Your task to perform on an android device: turn on javascript in the chrome app Image 0: 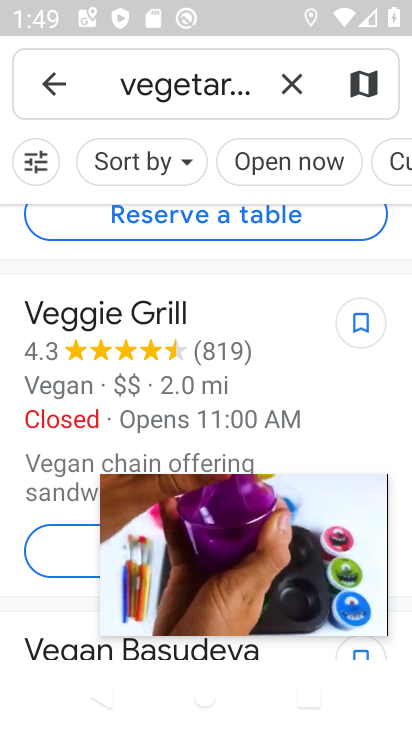
Step 0: click (45, 82)
Your task to perform on an android device: turn on javascript in the chrome app Image 1: 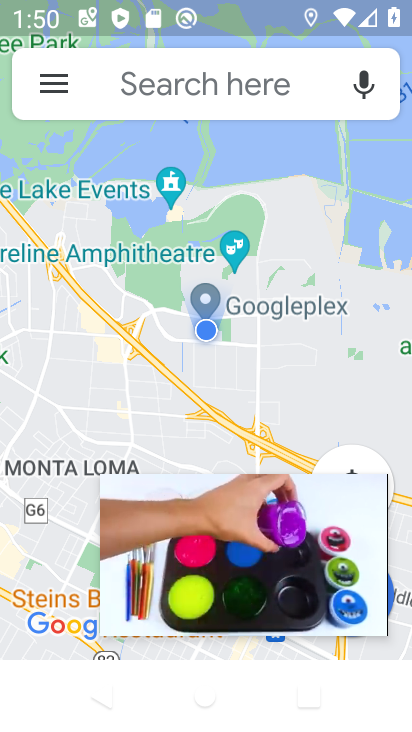
Step 1: press home button
Your task to perform on an android device: turn on javascript in the chrome app Image 2: 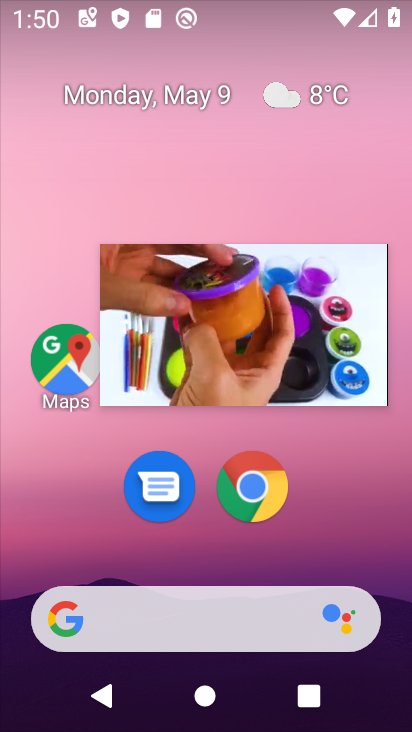
Step 2: click (377, 253)
Your task to perform on an android device: turn on javascript in the chrome app Image 3: 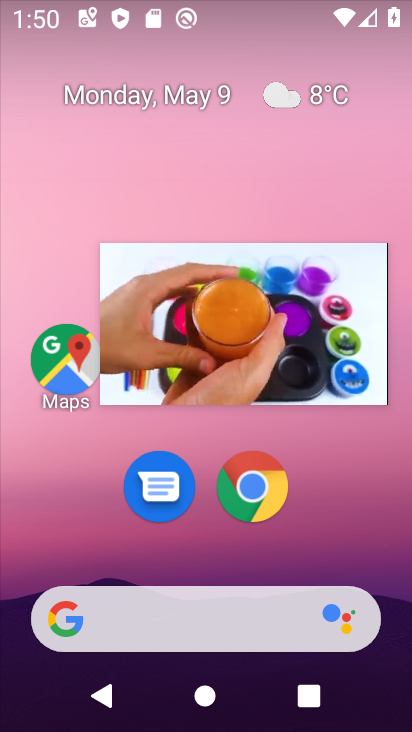
Step 3: click (379, 257)
Your task to perform on an android device: turn on javascript in the chrome app Image 4: 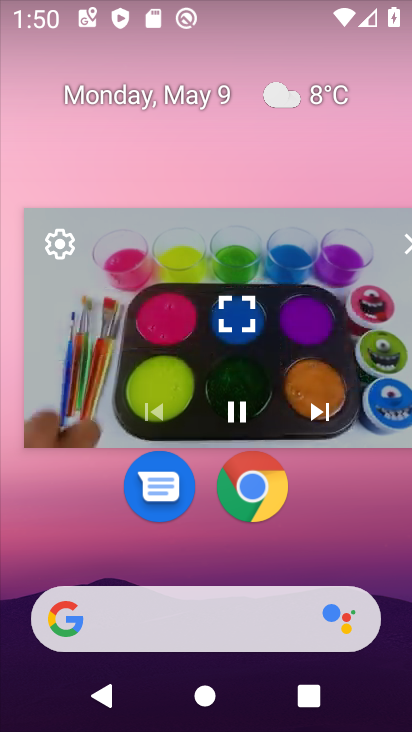
Step 4: click (404, 244)
Your task to perform on an android device: turn on javascript in the chrome app Image 5: 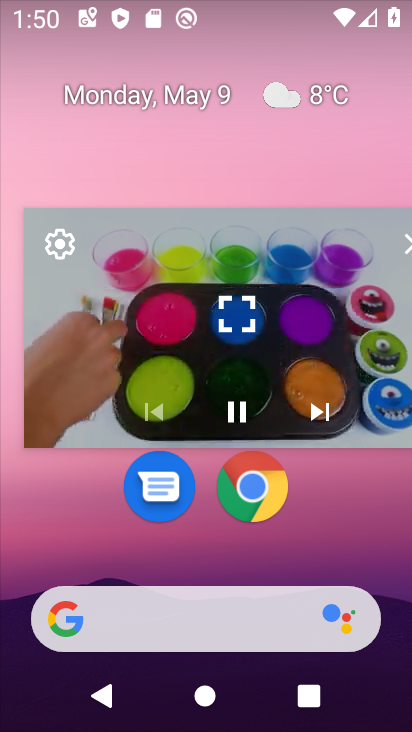
Step 5: click (404, 244)
Your task to perform on an android device: turn on javascript in the chrome app Image 6: 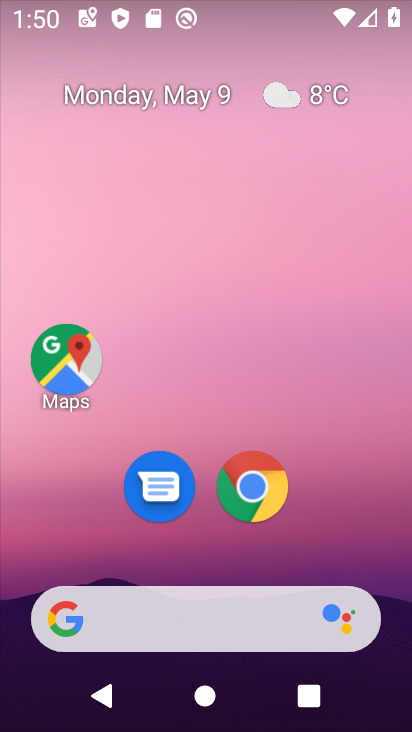
Step 6: click (259, 475)
Your task to perform on an android device: turn on javascript in the chrome app Image 7: 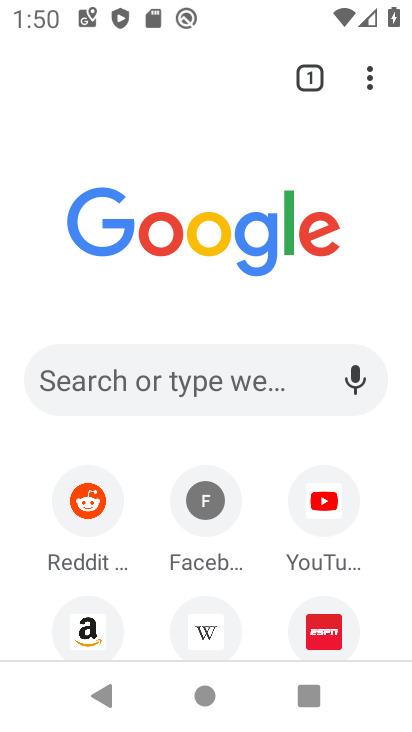
Step 7: drag from (243, 575) to (298, 394)
Your task to perform on an android device: turn on javascript in the chrome app Image 8: 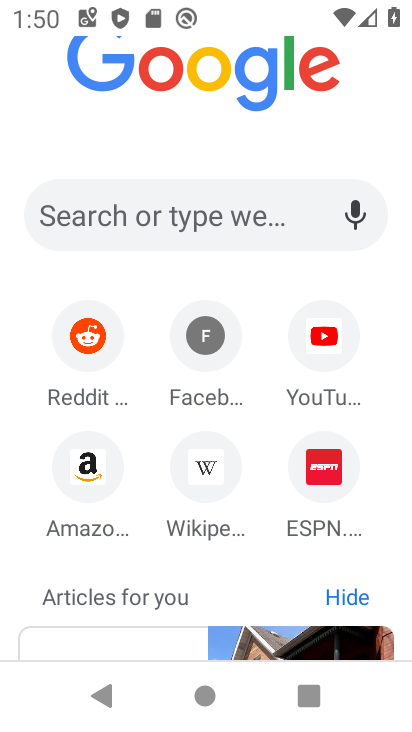
Step 8: drag from (344, 153) to (309, 511)
Your task to perform on an android device: turn on javascript in the chrome app Image 9: 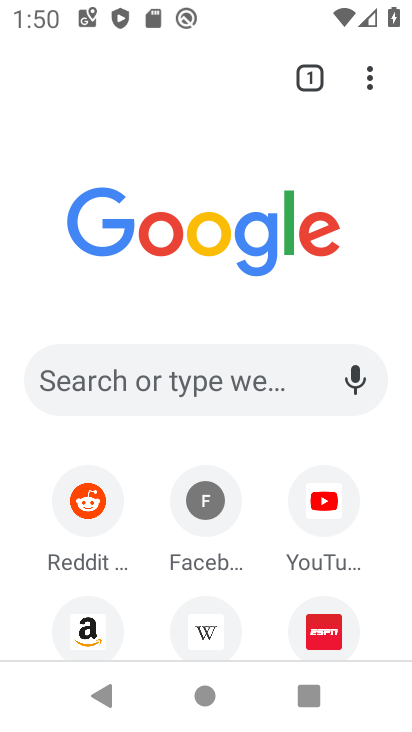
Step 9: click (371, 73)
Your task to perform on an android device: turn on javascript in the chrome app Image 10: 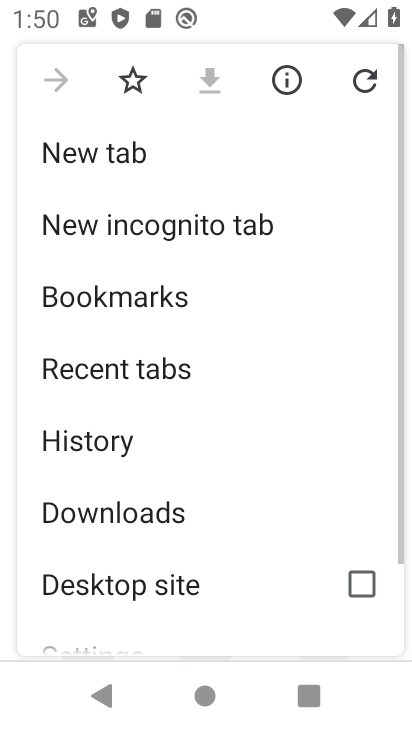
Step 10: drag from (277, 563) to (355, 261)
Your task to perform on an android device: turn on javascript in the chrome app Image 11: 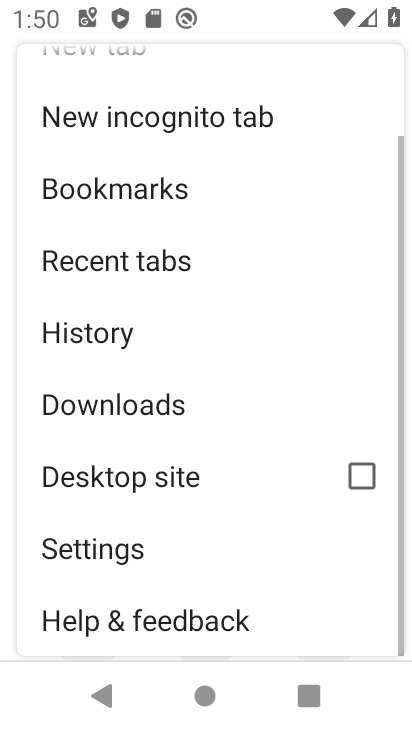
Step 11: drag from (259, 606) to (311, 313)
Your task to perform on an android device: turn on javascript in the chrome app Image 12: 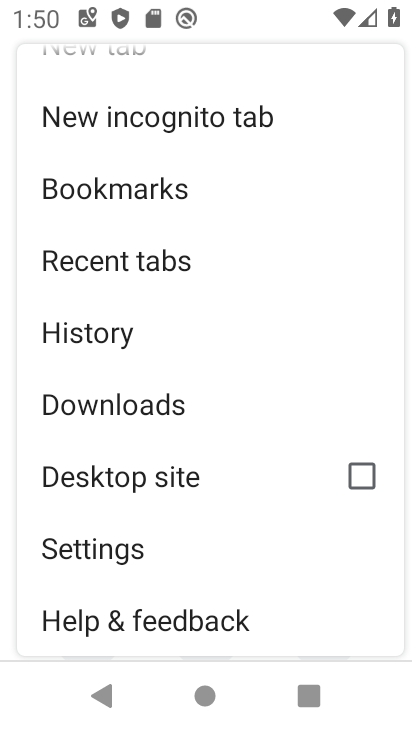
Step 12: click (213, 540)
Your task to perform on an android device: turn on javascript in the chrome app Image 13: 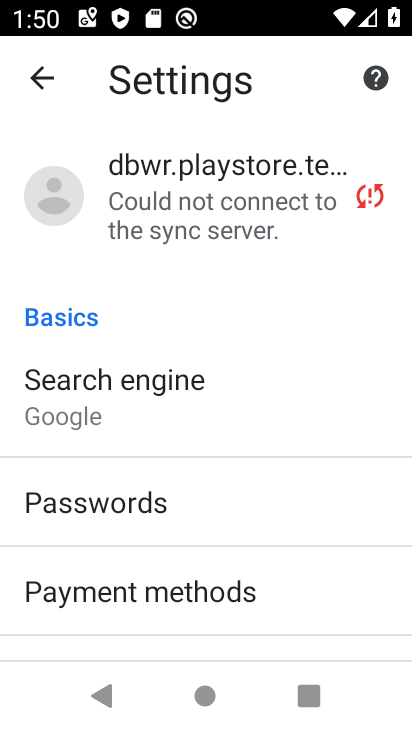
Step 13: drag from (210, 611) to (333, 302)
Your task to perform on an android device: turn on javascript in the chrome app Image 14: 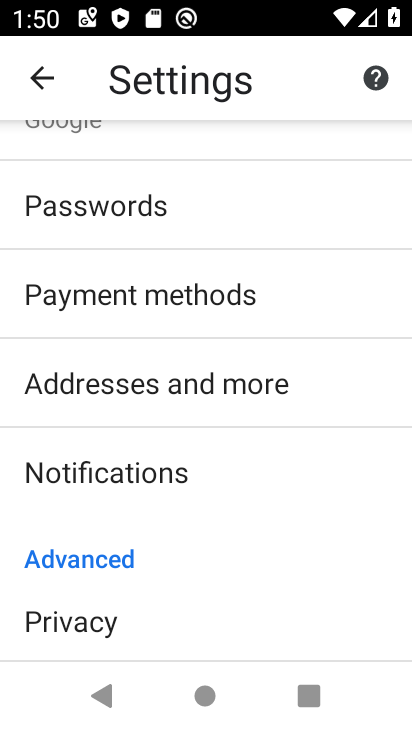
Step 14: drag from (326, 560) to (362, 428)
Your task to perform on an android device: turn on javascript in the chrome app Image 15: 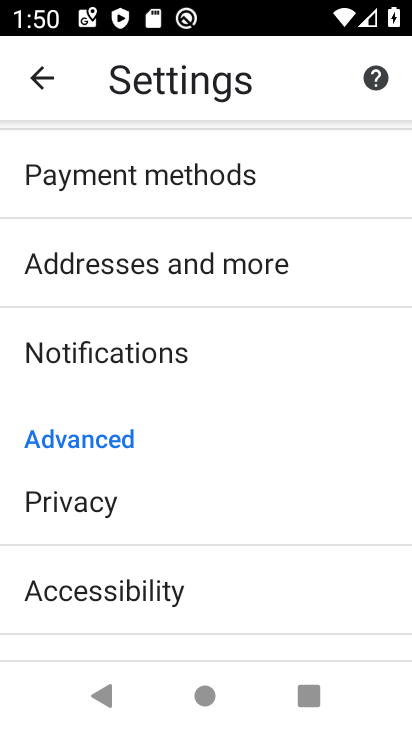
Step 15: drag from (249, 324) to (284, 206)
Your task to perform on an android device: turn on javascript in the chrome app Image 16: 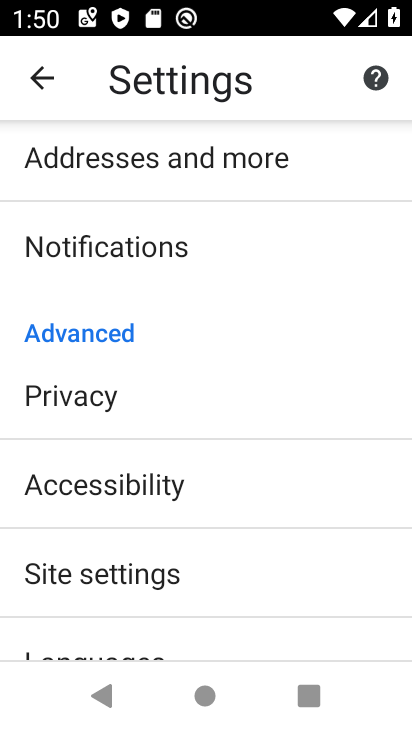
Step 16: click (29, 72)
Your task to perform on an android device: turn on javascript in the chrome app Image 17: 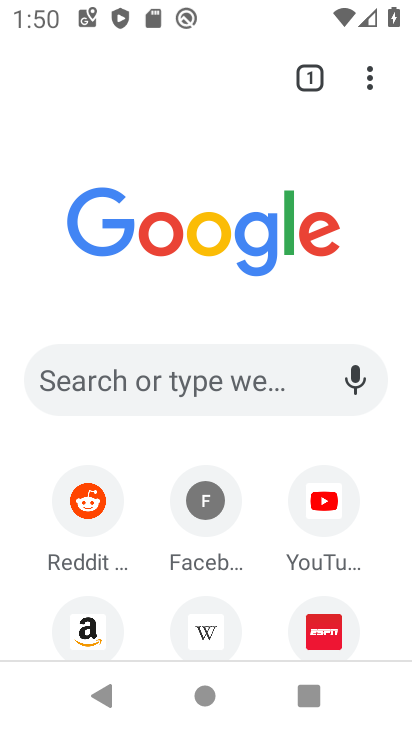
Step 17: click (365, 72)
Your task to perform on an android device: turn on javascript in the chrome app Image 18: 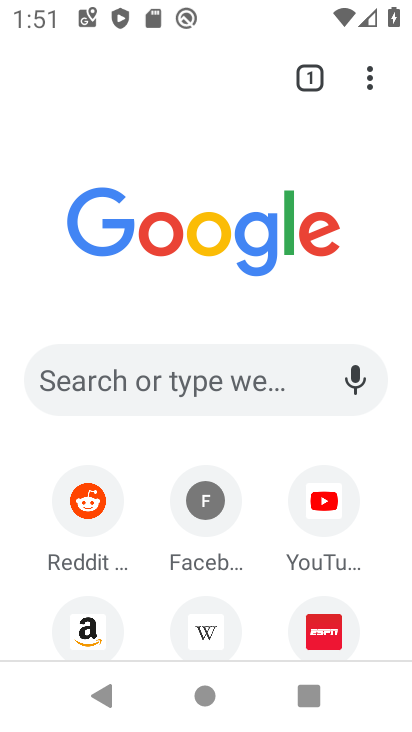
Step 18: click (374, 71)
Your task to perform on an android device: turn on javascript in the chrome app Image 19: 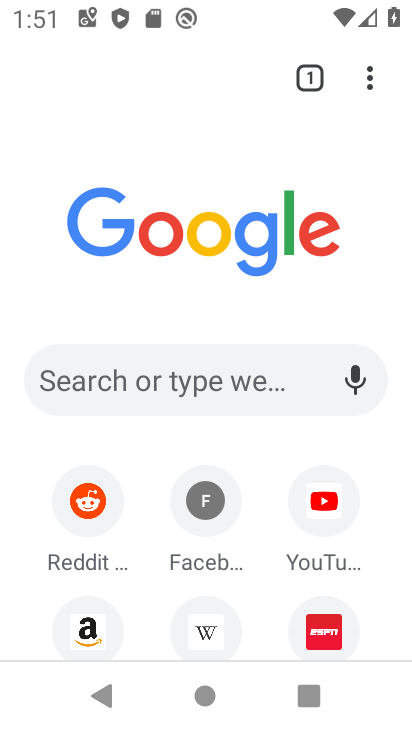
Step 19: click (360, 92)
Your task to perform on an android device: turn on javascript in the chrome app Image 20: 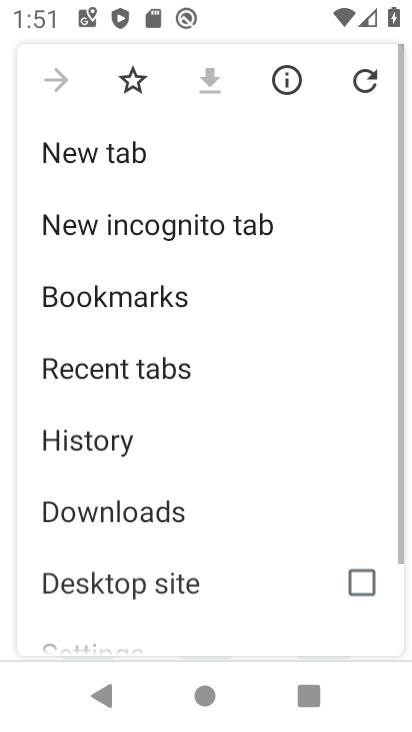
Step 20: click (374, 70)
Your task to perform on an android device: turn on javascript in the chrome app Image 21: 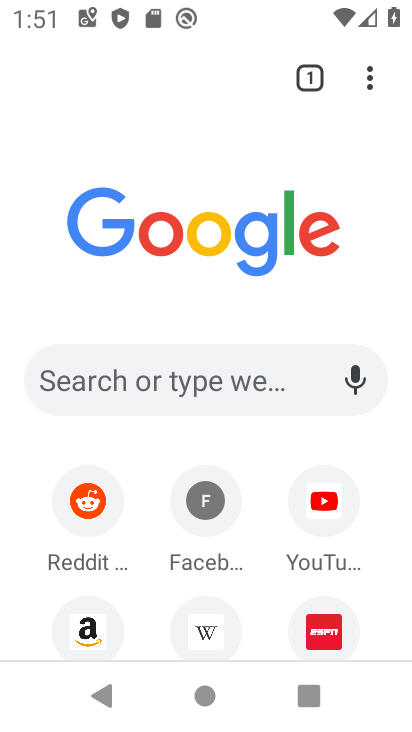
Step 21: click (379, 85)
Your task to perform on an android device: turn on javascript in the chrome app Image 22: 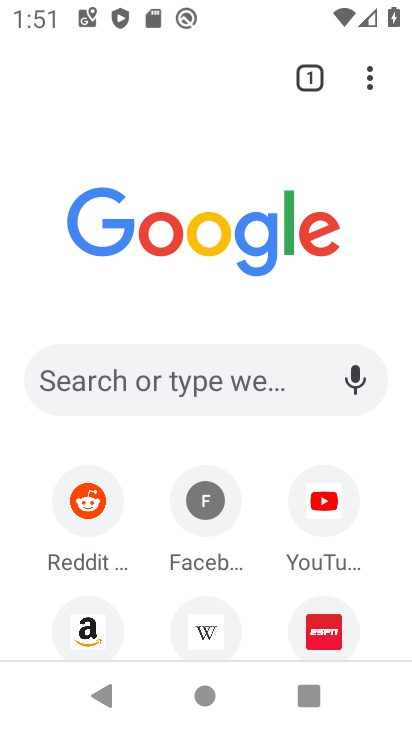
Step 22: click (375, 76)
Your task to perform on an android device: turn on javascript in the chrome app Image 23: 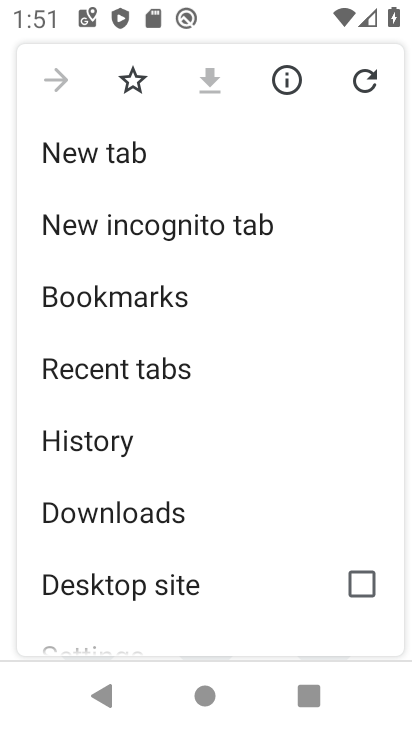
Step 23: drag from (98, 554) to (174, 143)
Your task to perform on an android device: turn on javascript in the chrome app Image 24: 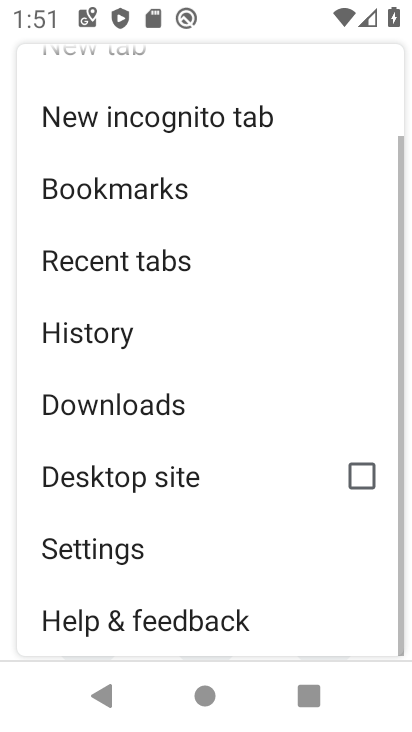
Step 24: click (124, 542)
Your task to perform on an android device: turn on javascript in the chrome app Image 25: 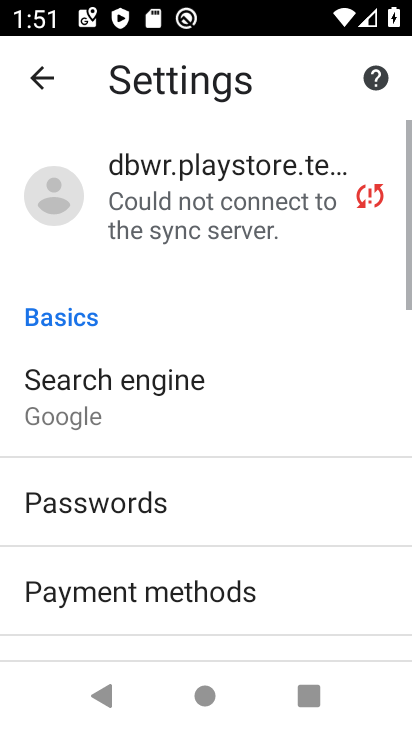
Step 25: drag from (147, 555) to (236, 14)
Your task to perform on an android device: turn on javascript in the chrome app Image 26: 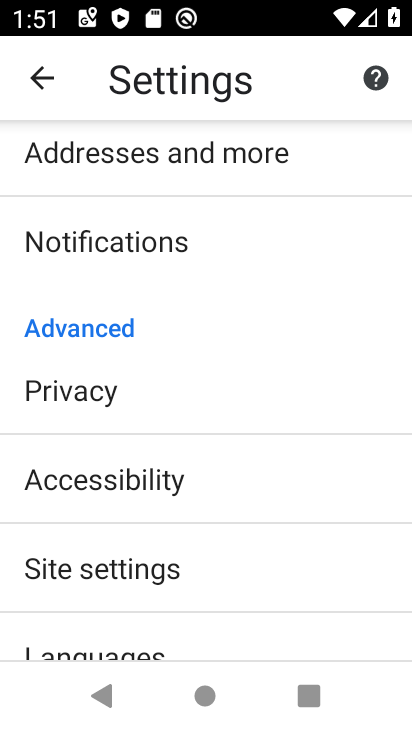
Step 26: click (76, 572)
Your task to perform on an android device: turn on javascript in the chrome app Image 27: 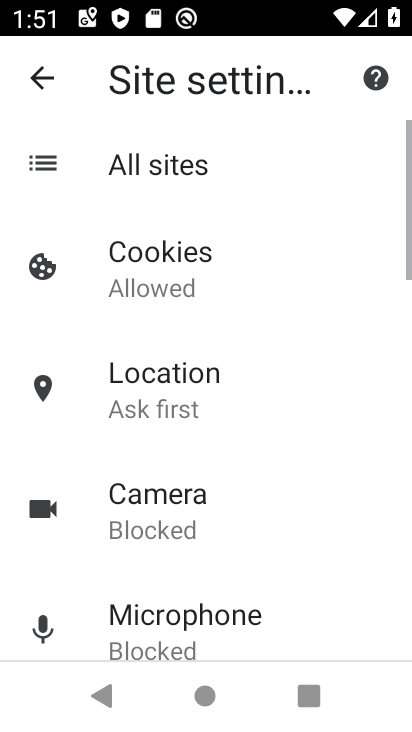
Step 27: drag from (102, 576) to (192, 38)
Your task to perform on an android device: turn on javascript in the chrome app Image 28: 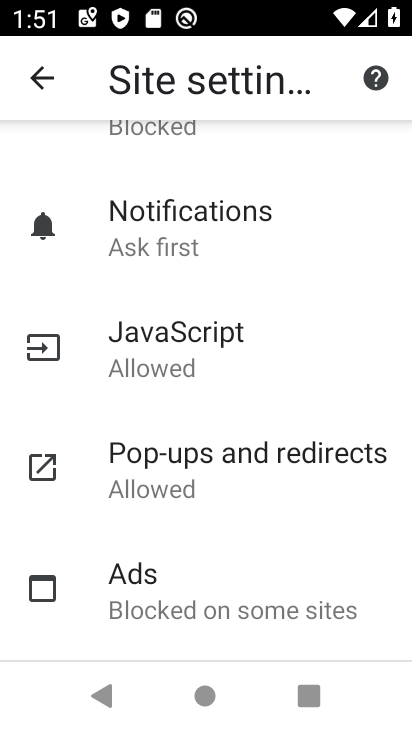
Step 28: click (162, 343)
Your task to perform on an android device: turn on javascript in the chrome app Image 29: 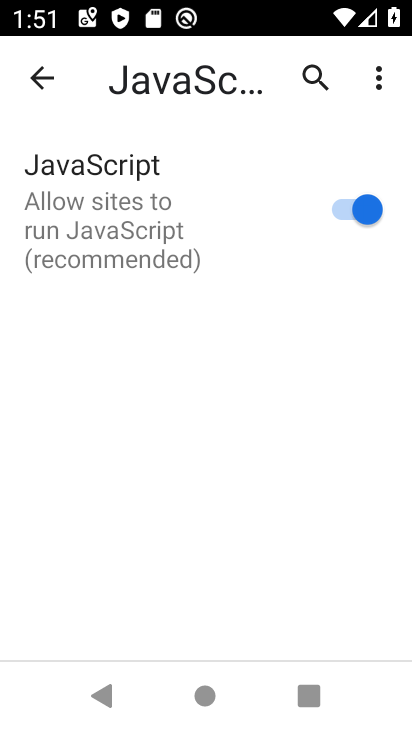
Step 29: task complete